Your task to perform on an android device: change keyboard looks Image 0: 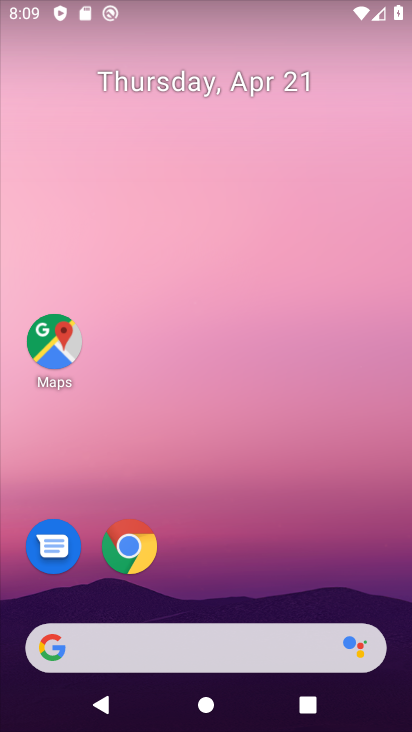
Step 0: drag from (216, 540) to (266, 86)
Your task to perform on an android device: change keyboard looks Image 1: 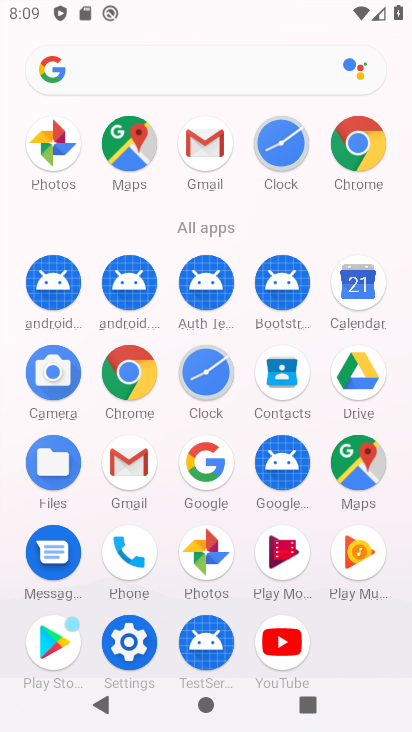
Step 1: click (126, 654)
Your task to perform on an android device: change keyboard looks Image 2: 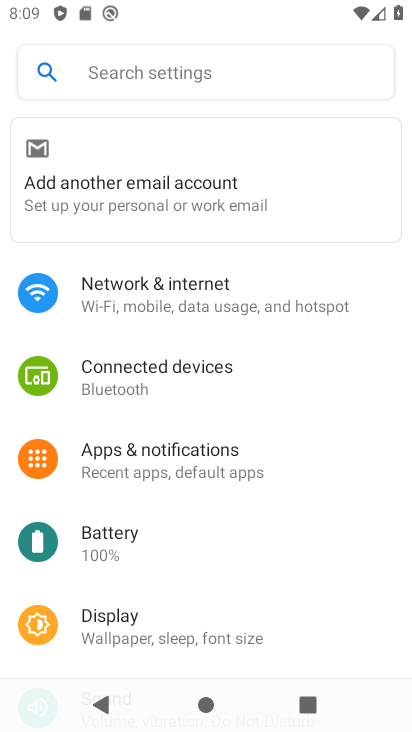
Step 2: drag from (153, 498) to (184, 61)
Your task to perform on an android device: change keyboard looks Image 3: 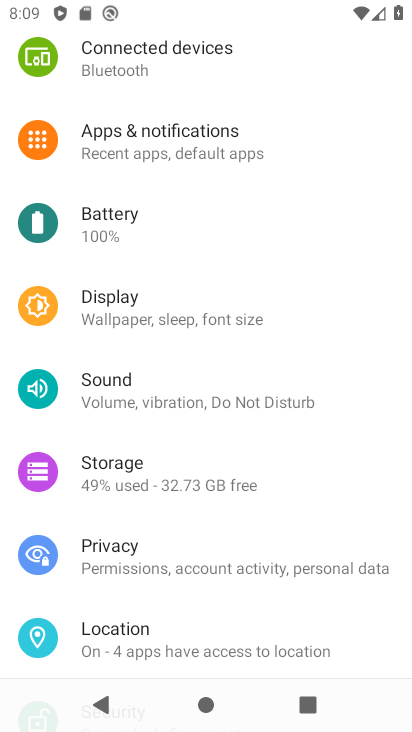
Step 3: drag from (202, 611) to (243, 61)
Your task to perform on an android device: change keyboard looks Image 4: 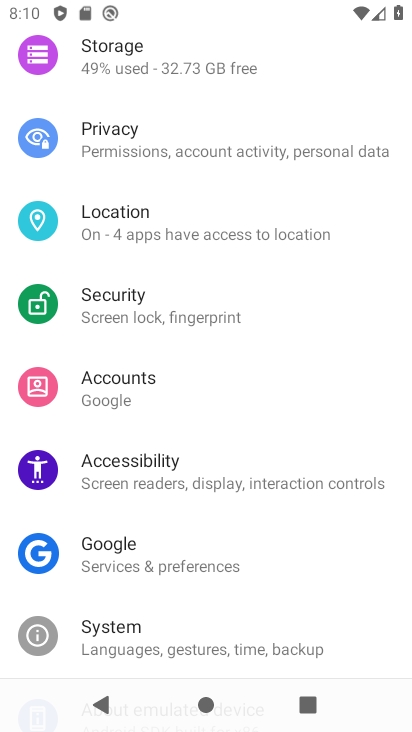
Step 4: click (174, 634)
Your task to perform on an android device: change keyboard looks Image 5: 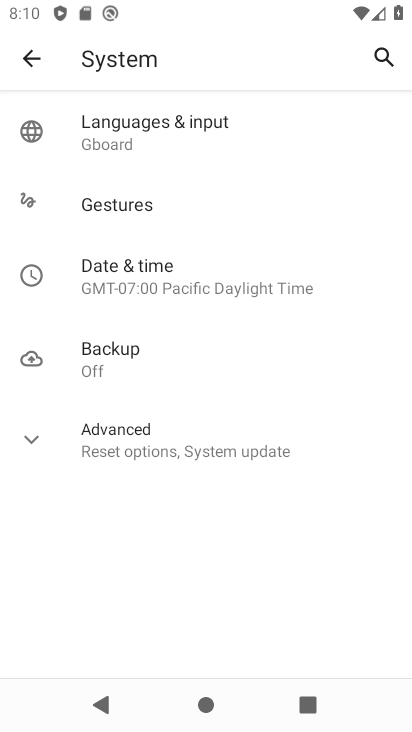
Step 5: click (220, 137)
Your task to perform on an android device: change keyboard looks Image 6: 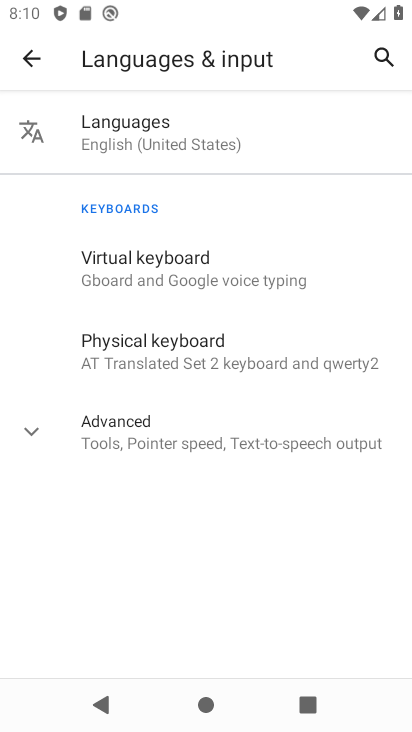
Step 6: click (179, 276)
Your task to perform on an android device: change keyboard looks Image 7: 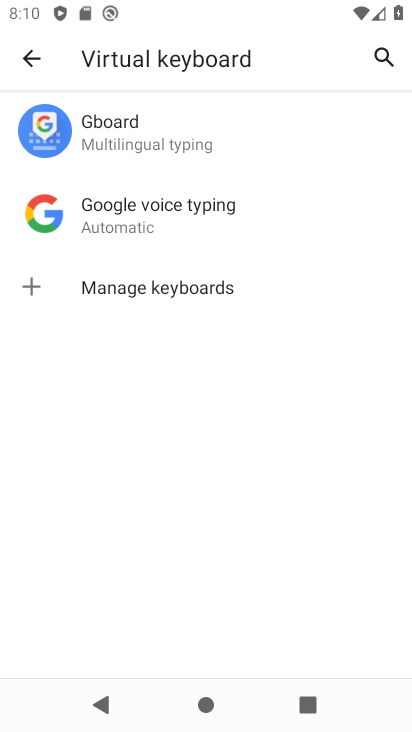
Step 7: click (157, 147)
Your task to perform on an android device: change keyboard looks Image 8: 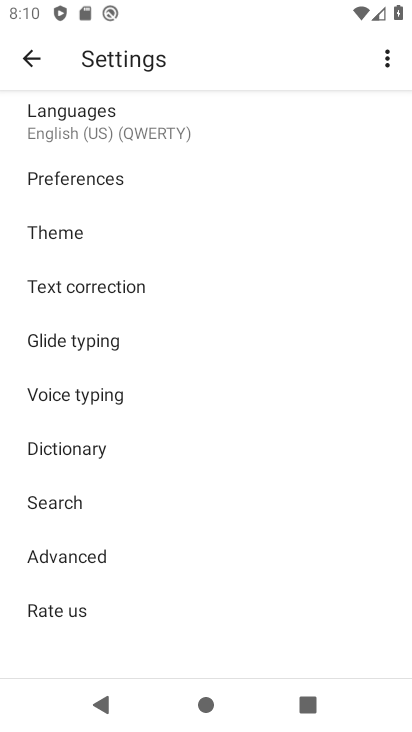
Step 8: click (83, 236)
Your task to perform on an android device: change keyboard looks Image 9: 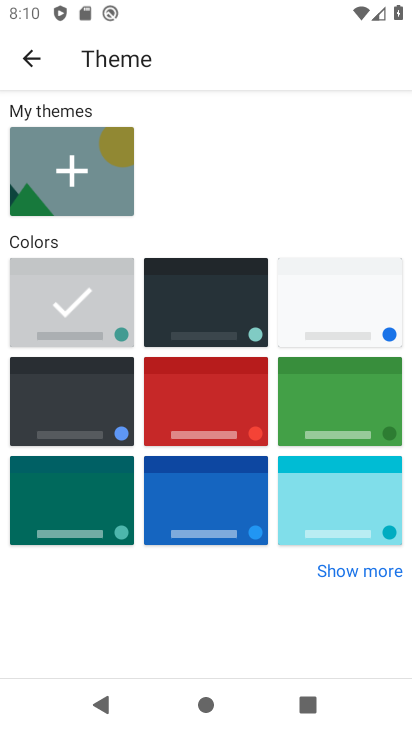
Step 9: click (236, 316)
Your task to perform on an android device: change keyboard looks Image 10: 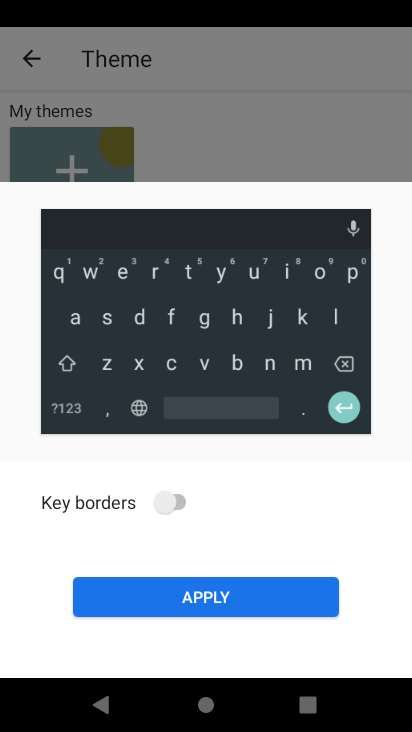
Step 10: click (176, 603)
Your task to perform on an android device: change keyboard looks Image 11: 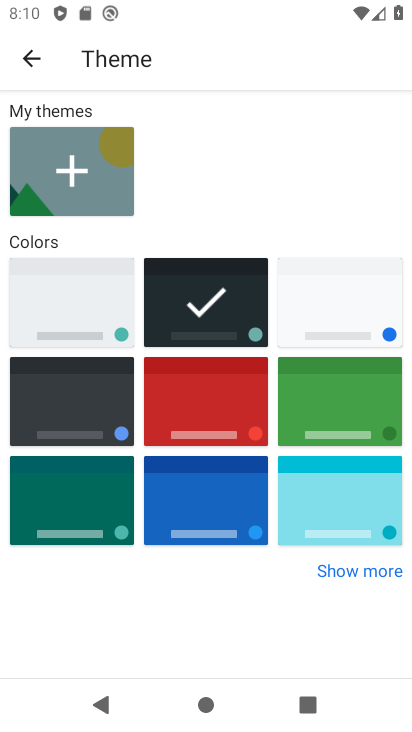
Step 11: task complete